Your task to perform on an android device: set default search engine in the chrome app Image 0: 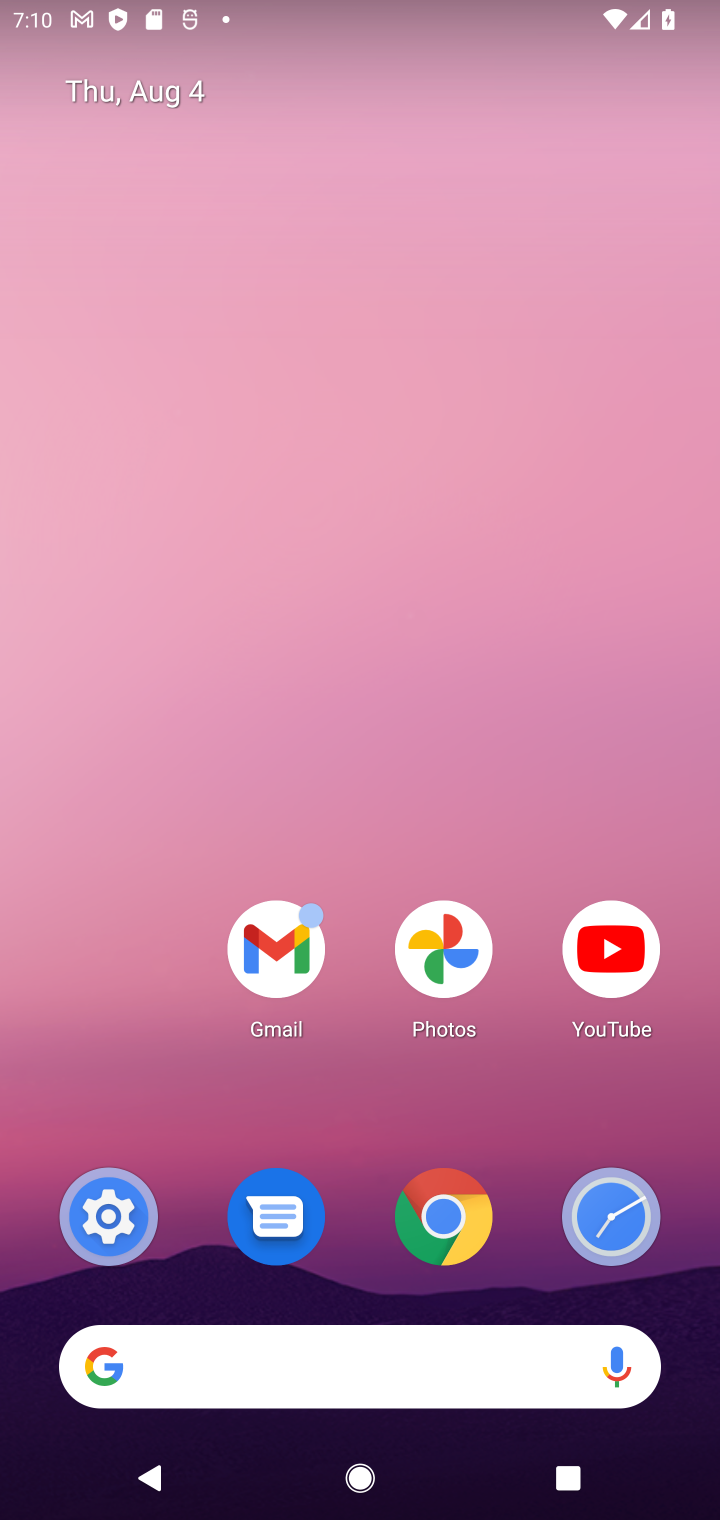
Step 0: click (450, 1224)
Your task to perform on an android device: set default search engine in the chrome app Image 1: 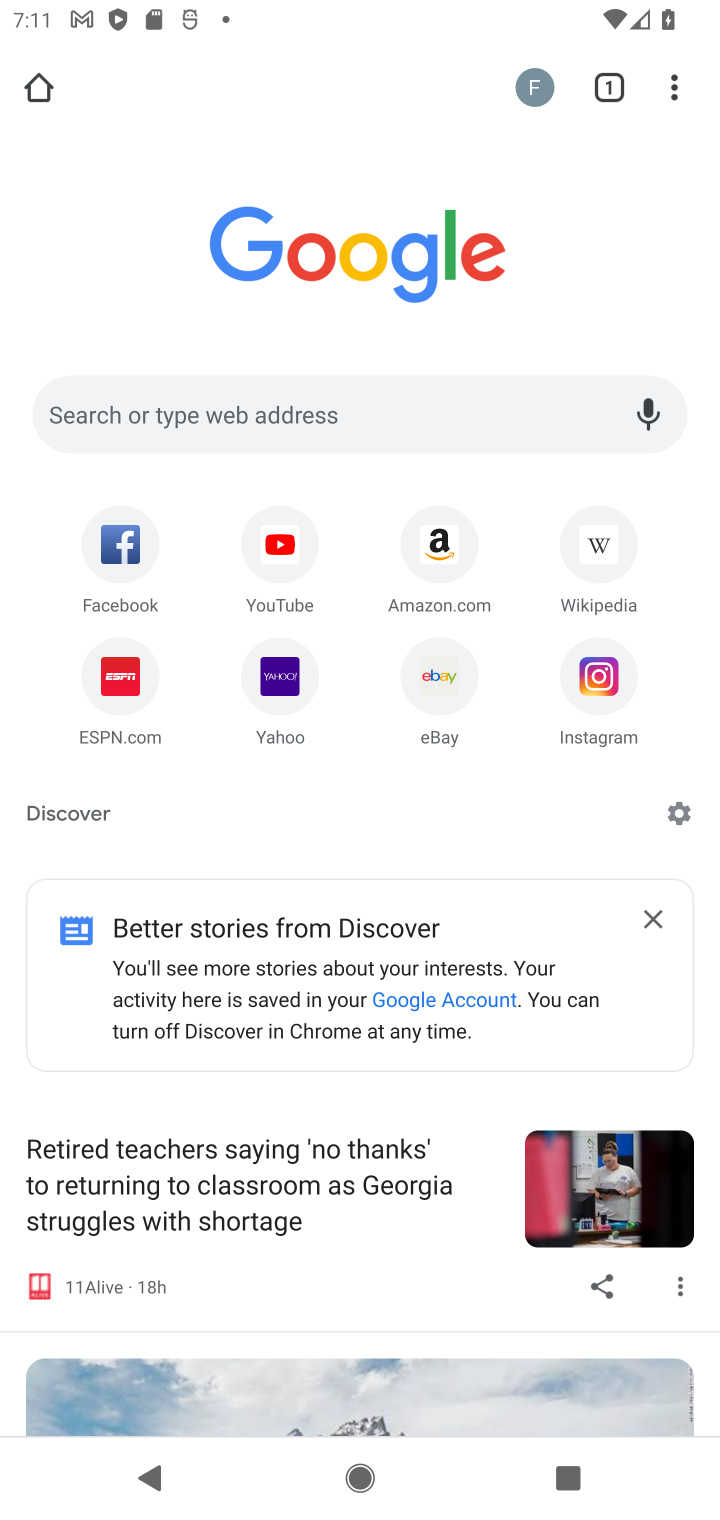
Step 1: click (675, 100)
Your task to perform on an android device: set default search engine in the chrome app Image 2: 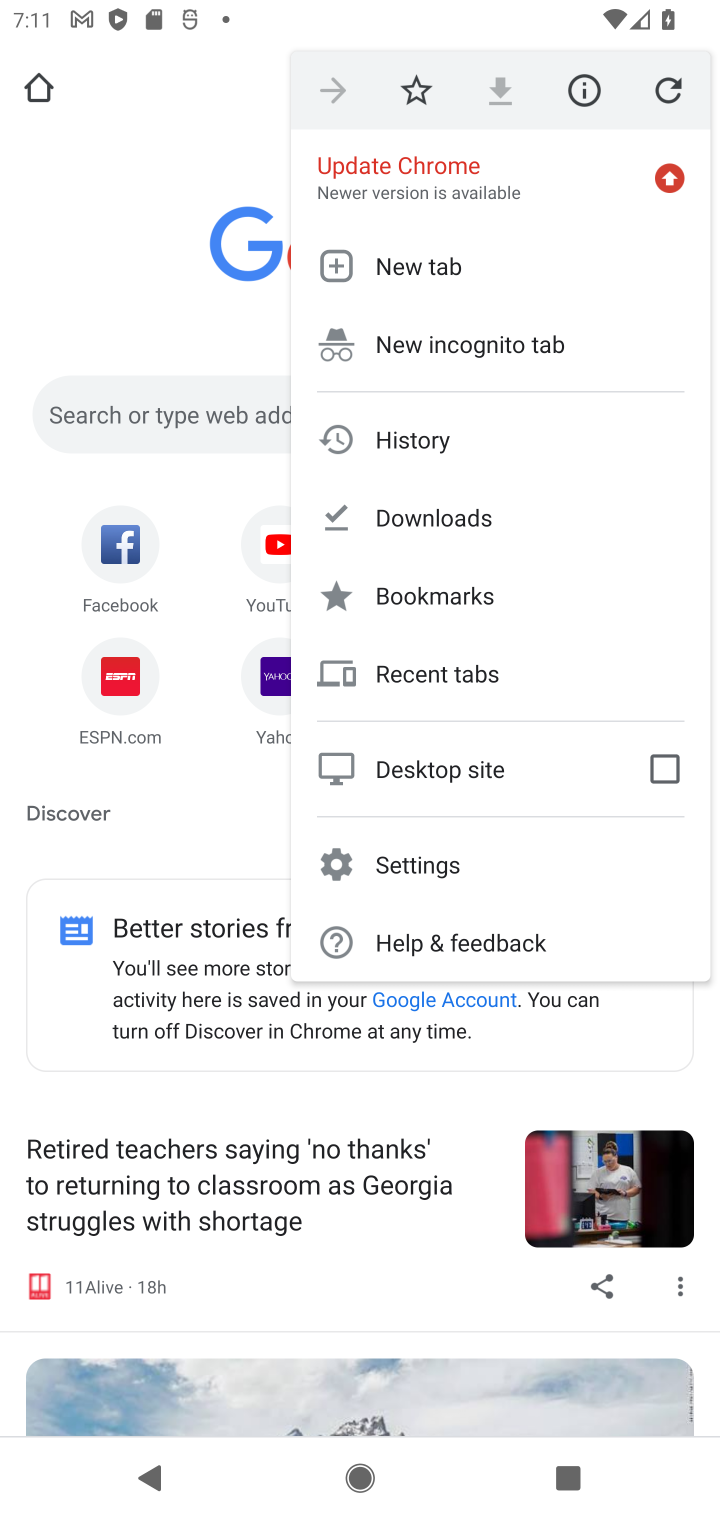
Step 2: click (420, 858)
Your task to perform on an android device: set default search engine in the chrome app Image 3: 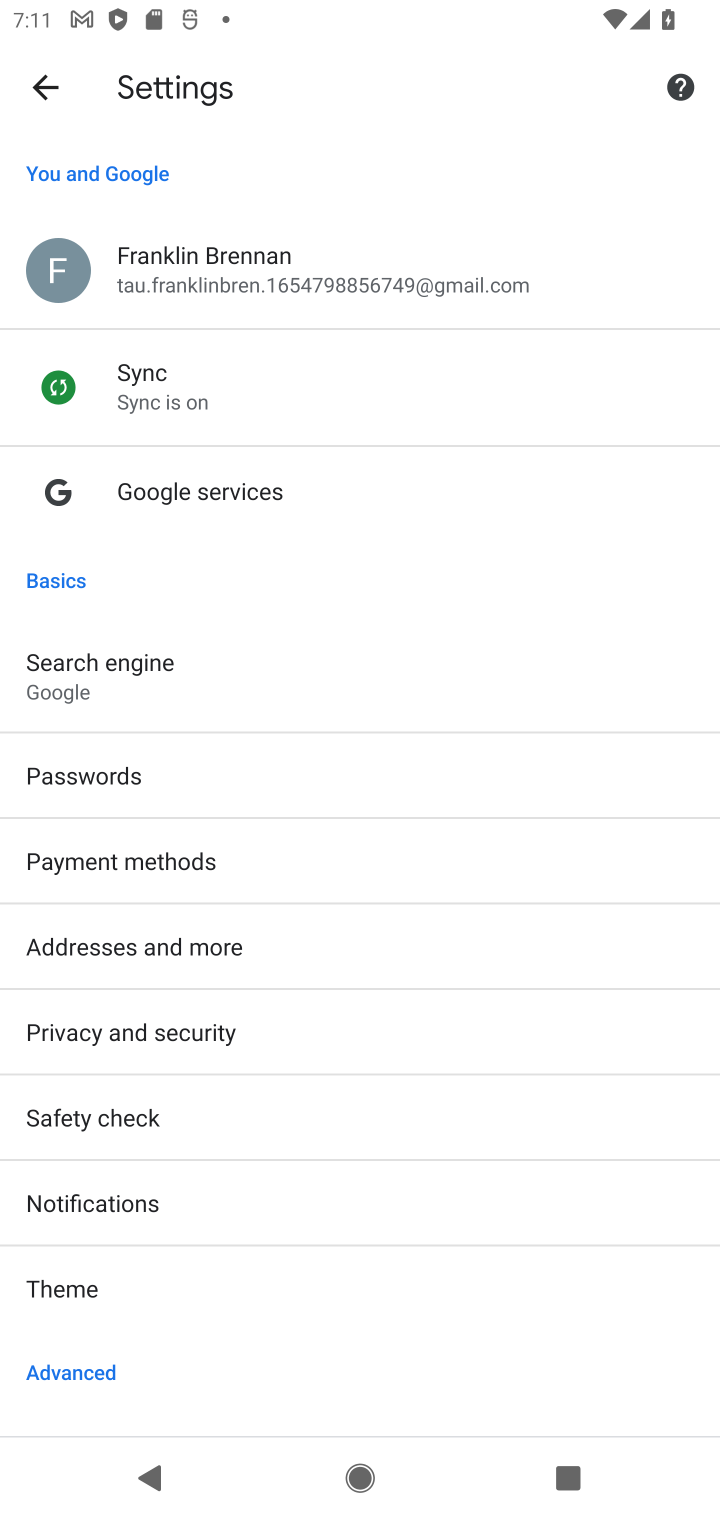
Step 3: click (57, 687)
Your task to perform on an android device: set default search engine in the chrome app Image 4: 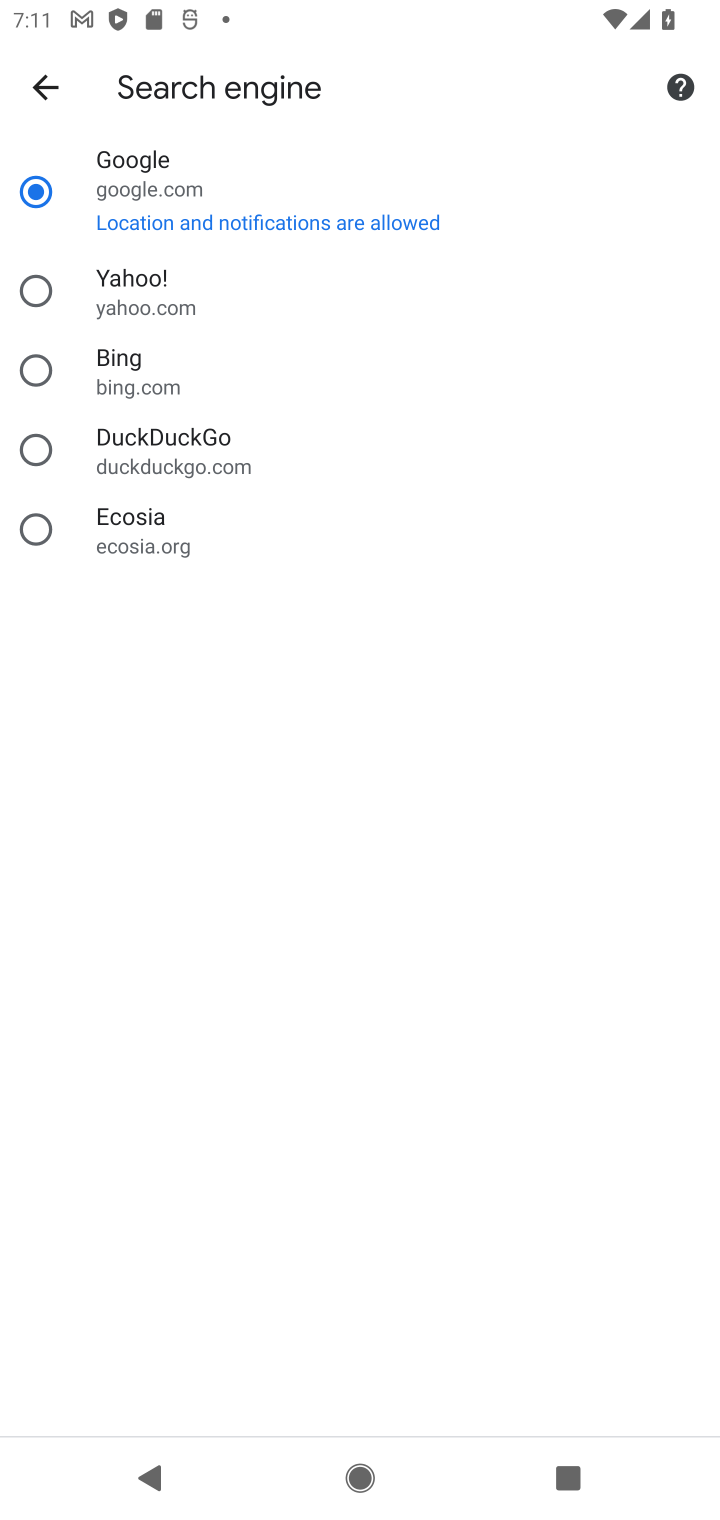
Step 4: click (33, 285)
Your task to perform on an android device: set default search engine in the chrome app Image 5: 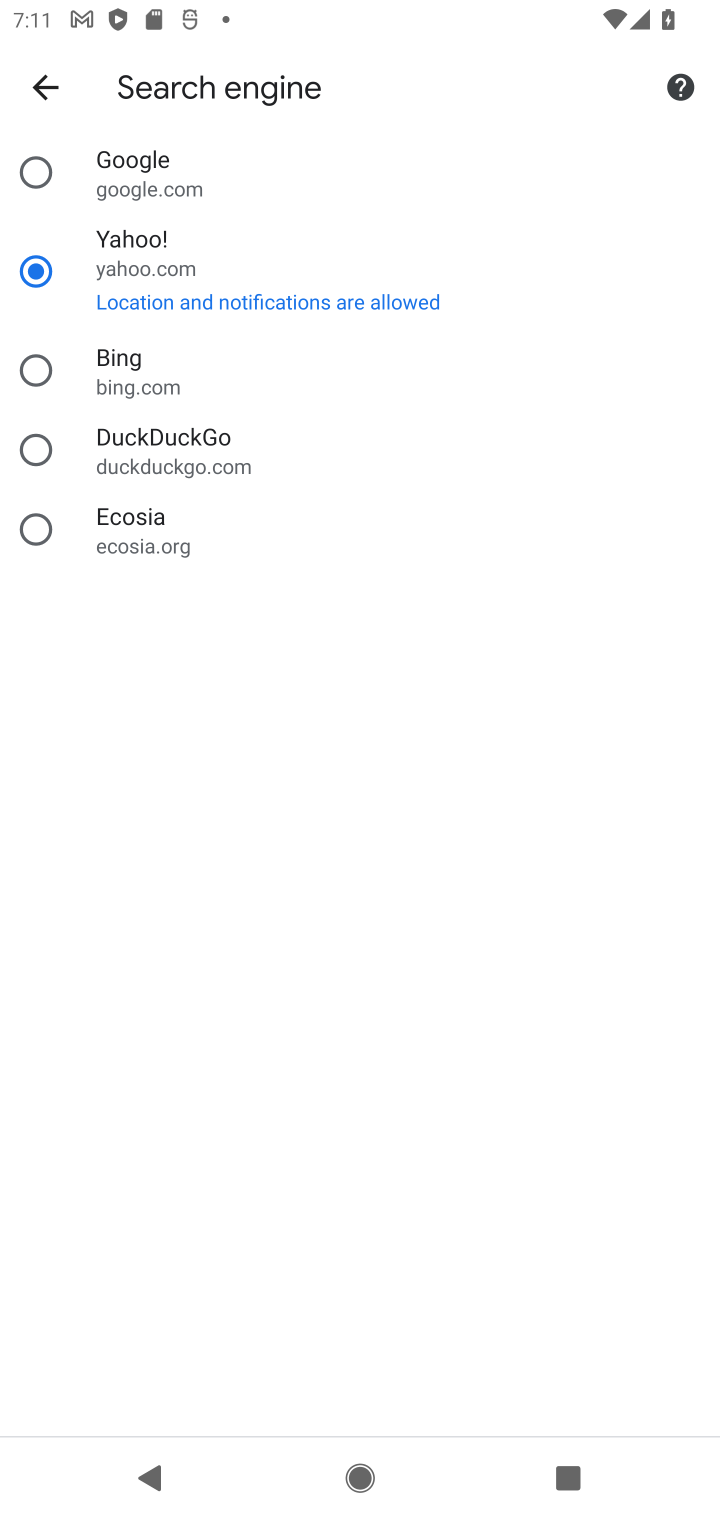
Step 5: task complete